Your task to perform on an android device: check android version Image 0: 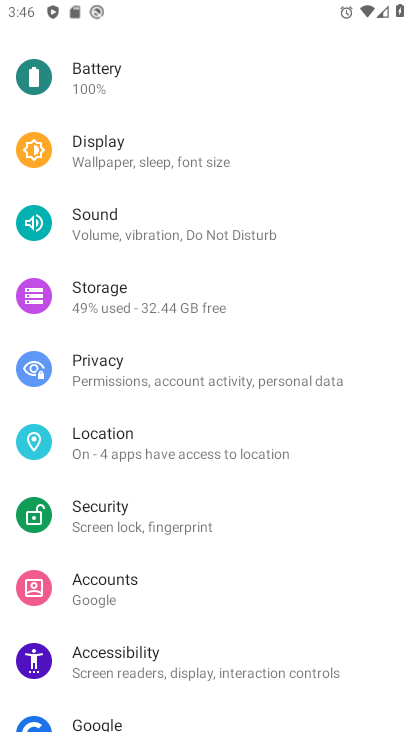
Step 0: drag from (233, 657) to (267, 95)
Your task to perform on an android device: check android version Image 1: 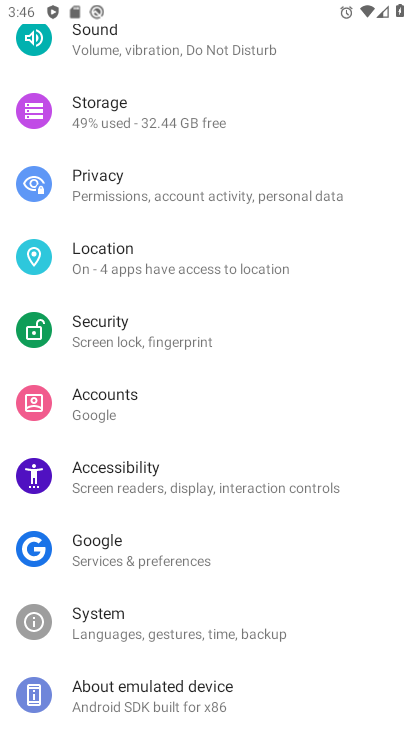
Step 1: click (176, 687)
Your task to perform on an android device: check android version Image 2: 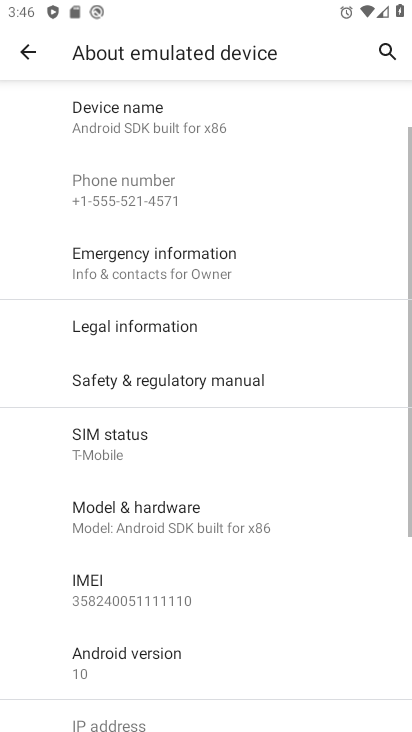
Step 2: drag from (268, 577) to (280, 348)
Your task to perform on an android device: check android version Image 3: 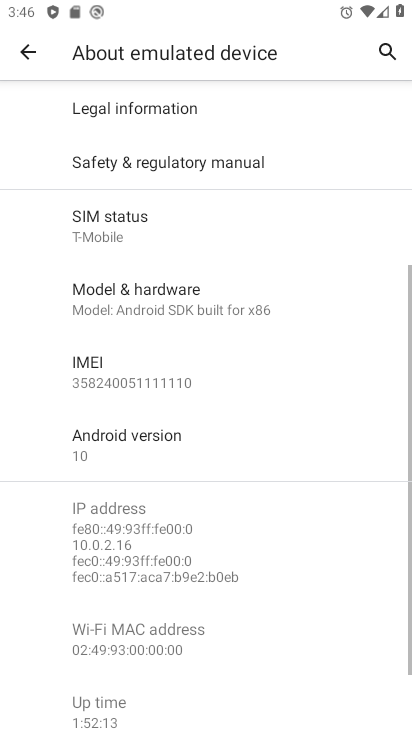
Step 3: click (188, 444)
Your task to perform on an android device: check android version Image 4: 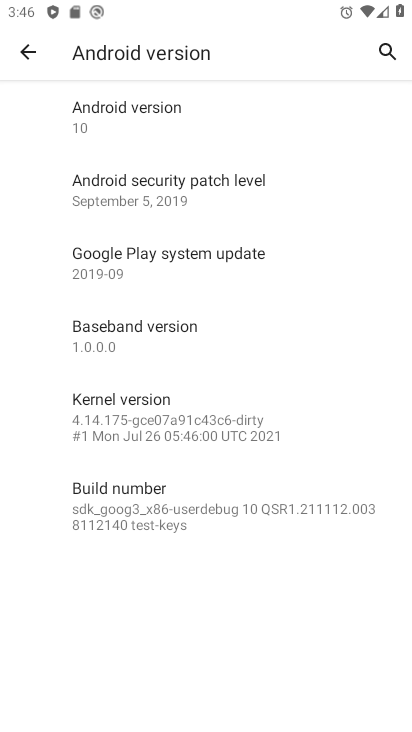
Step 4: task complete